Your task to perform on an android device: all mails in gmail Image 0: 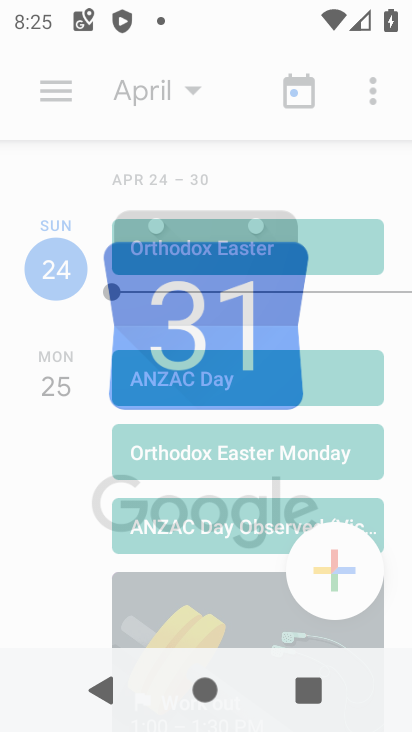
Step 0: drag from (236, 560) to (290, 225)
Your task to perform on an android device: all mails in gmail Image 1: 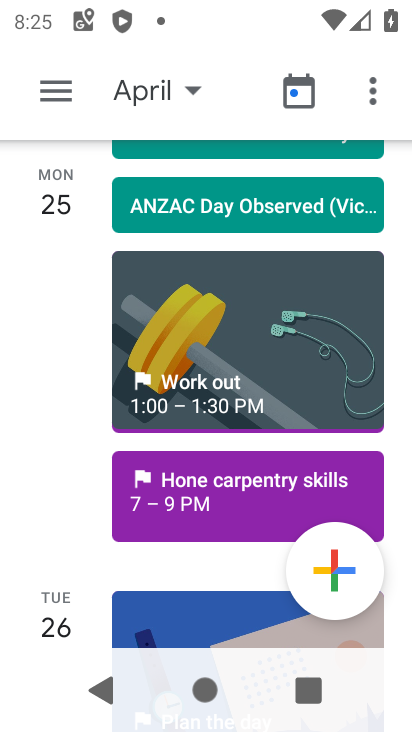
Step 1: press home button
Your task to perform on an android device: all mails in gmail Image 2: 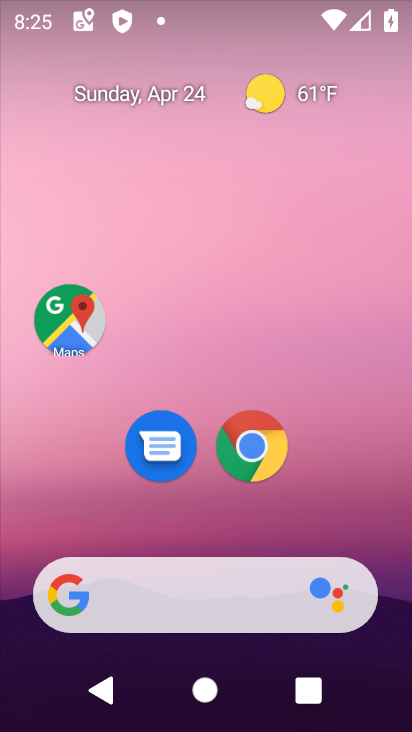
Step 2: drag from (247, 388) to (256, 172)
Your task to perform on an android device: all mails in gmail Image 3: 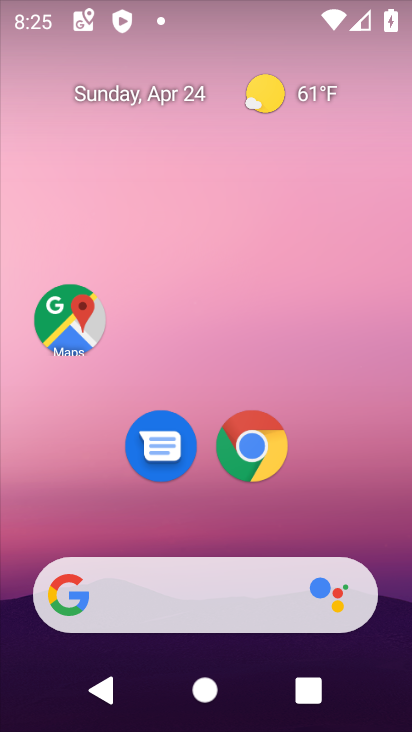
Step 3: drag from (205, 588) to (265, 103)
Your task to perform on an android device: all mails in gmail Image 4: 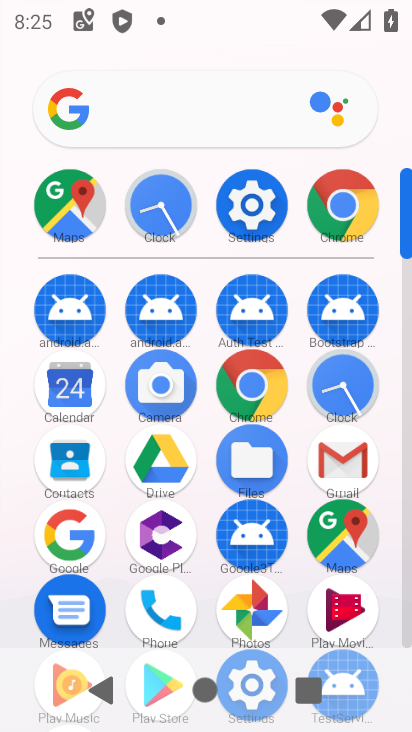
Step 4: click (336, 464)
Your task to perform on an android device: all mails in gmail Image 5: 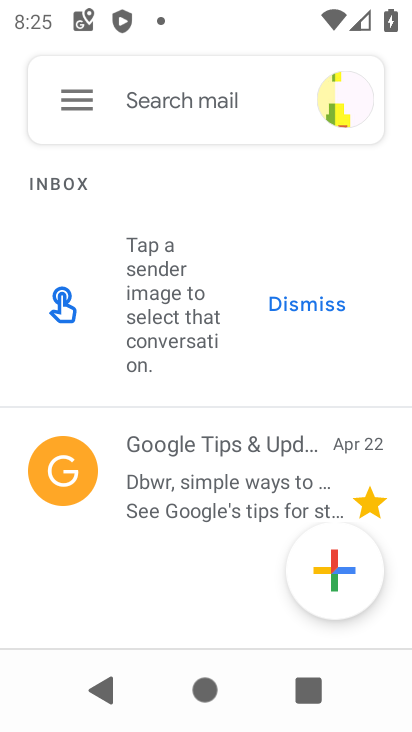
Step 5: click (91, 110)
Your task to perform on an android device: all mails in gmail Image 6: 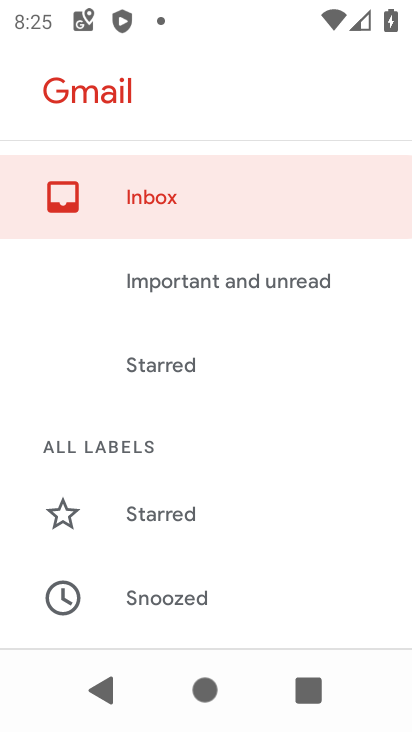
Step 6: drag from (180, 414) to (268, 55)
Your task to perform on an android device: all mails in gmail Image 7: 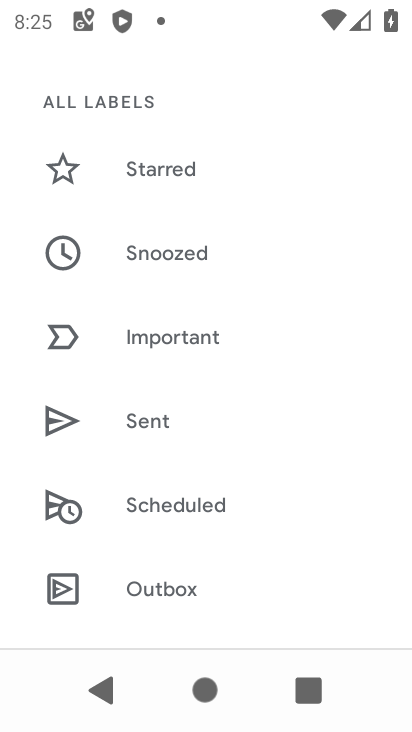
Step 7: drag from (229, 319) to (300, 86)
Your task to perform on an android device: all mails in gmail Image 8: 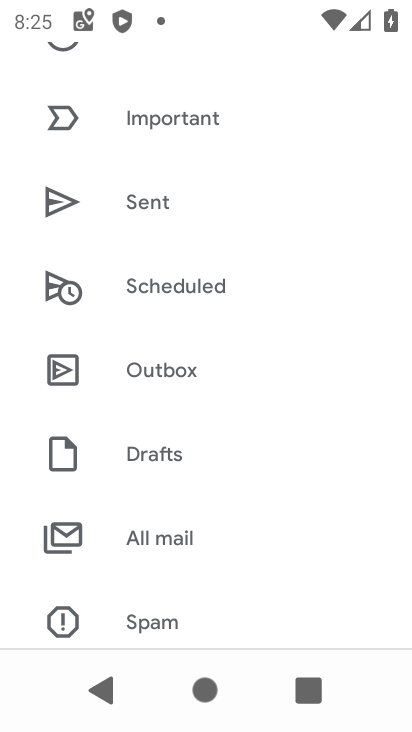
Step 8: click (166, 543)
Your task to perform on an android device: all mails in gmail Image 9: 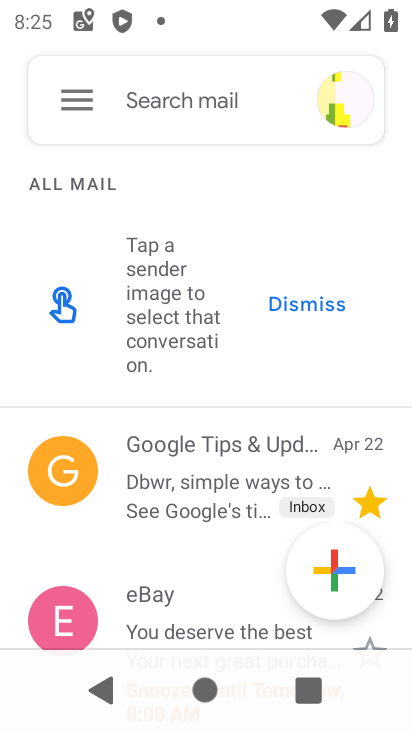
Step 9: task complete